Your task to perform on an android device: change timer sound Image 0: 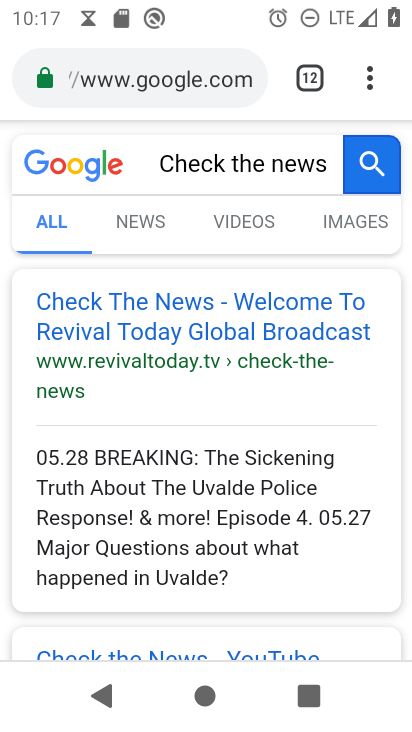
Step 0: press home button
Your task to perform on an android device: change timer sound Image 1: 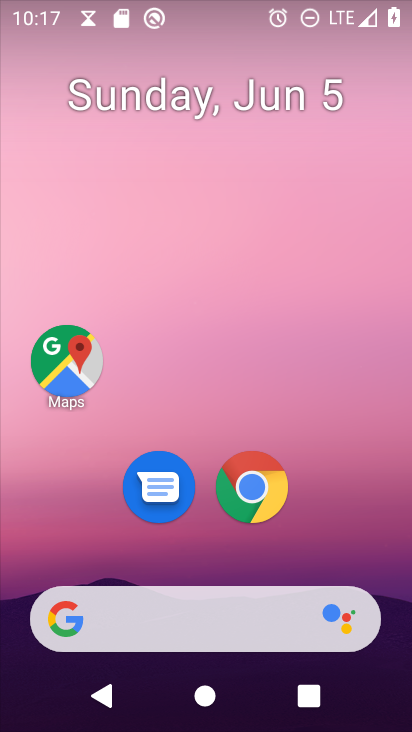
Step 1: drag from (206, 495) to (213, 245)
Your task to perform on an android device: change timer sound Image 2: 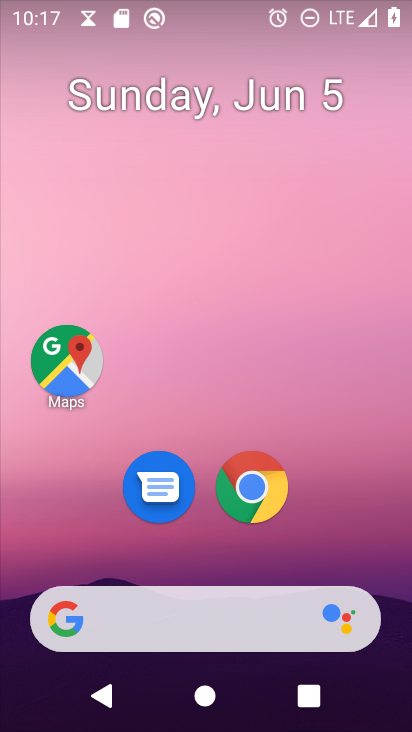
Step 2: drag from (203, 550) to (233, 168)
Your task to perform on an android device: change timer sound Image 3: 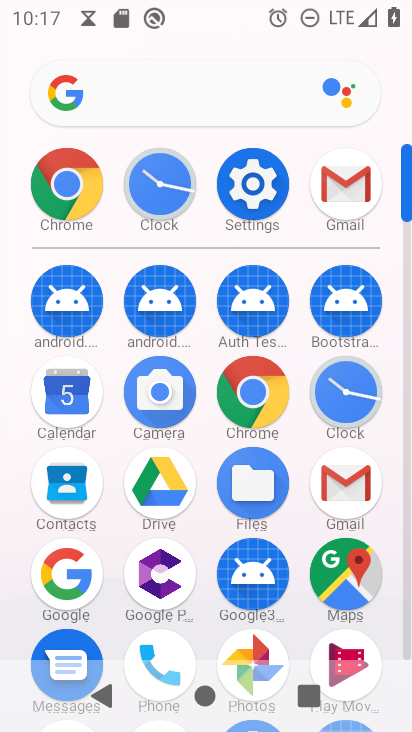
Step 3: click (334, 385)
Your task to perform on an android device: change timer sound Image 4: 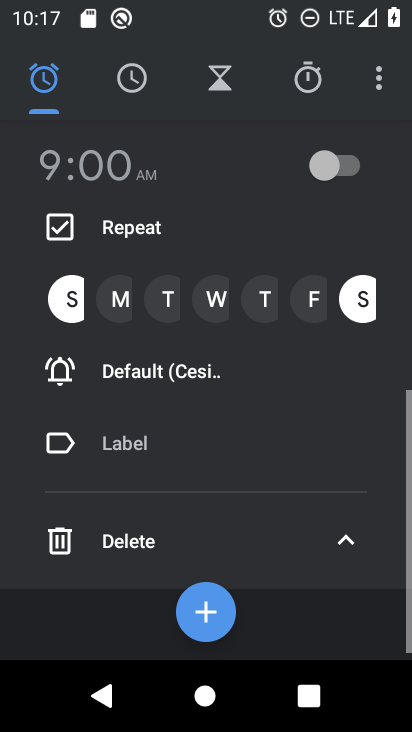
Step 4: click (373, 78)
Your task to perform on an android device: change timer sound Image 5: 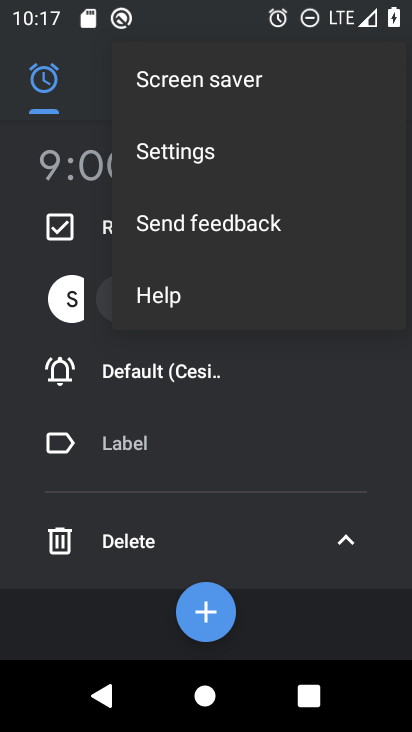
Step 5: click (243, 154)
Your task to perform on an android device: change timer sound Image 6: 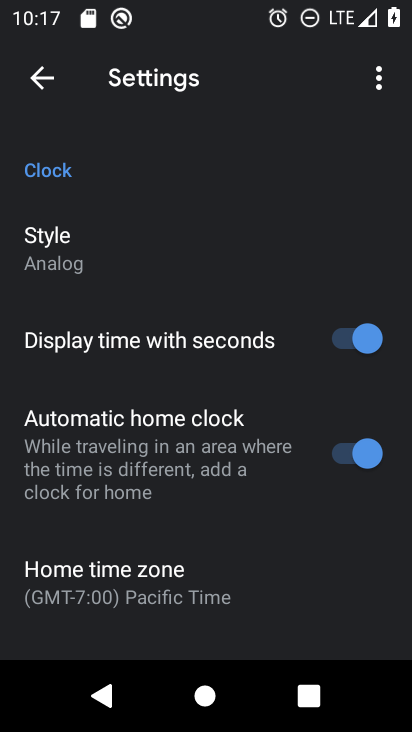
Step 6: drag from (166, 539) to (205, 198)
Your task to perform on an android device: change timer sound Image 7: 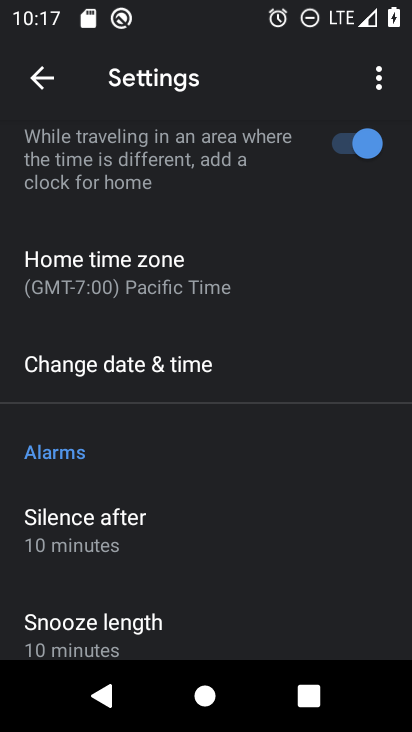
Step 7: drag from (177, 532) to (246, 221)
Your task to perform on an android device: change timer sound Image 8: 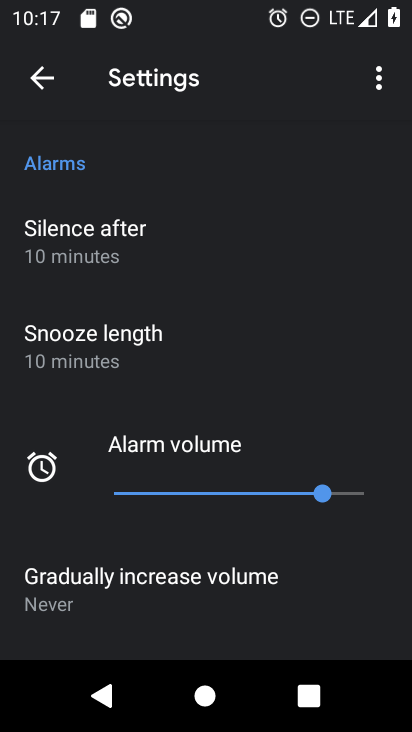
Step 8: drag from (146, 575) to (166, 309)
Your task to perform on an android device: change timer sound Image 9: 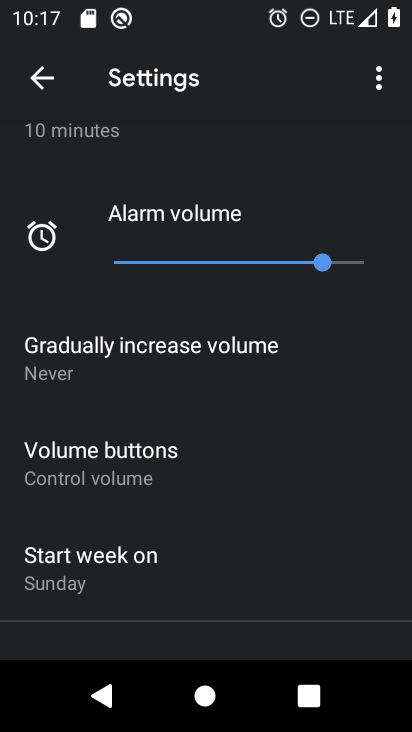
Step 9: drag from (128, 583) to (189, 243)
Your task to perform on an android device: change timer sound Image 10: 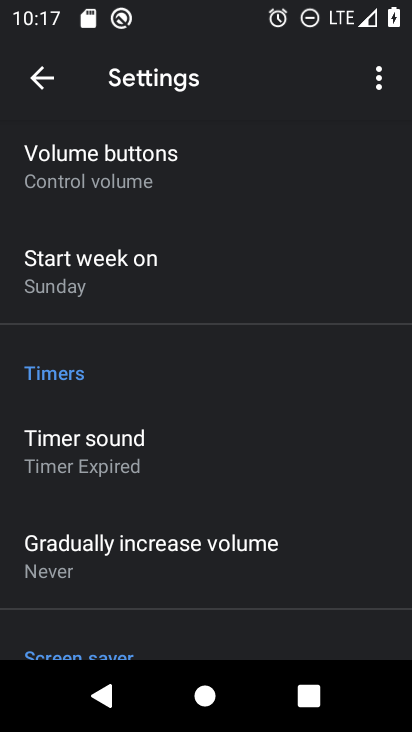
Step 10: click (136, 456)
Your task to perform on an android device: change timer sound Image 11: 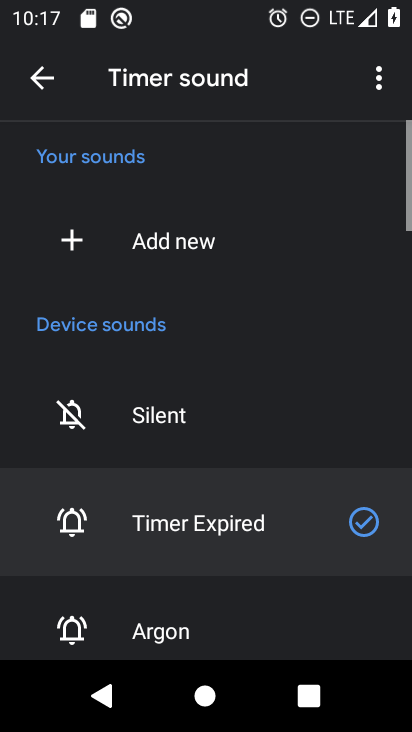
Step 11: click (196, 404)
Your task to perform on an android device: change timer sound Image 12: 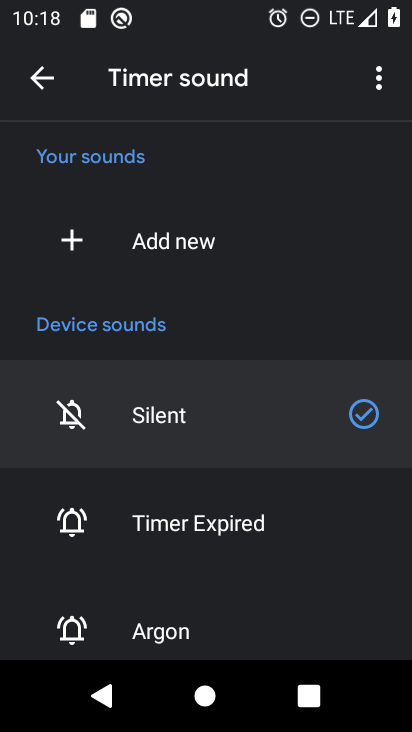
Step 12: task complete